Your task to perform on an android device: Open Google Chrome and open the bookmarks view Image 0: 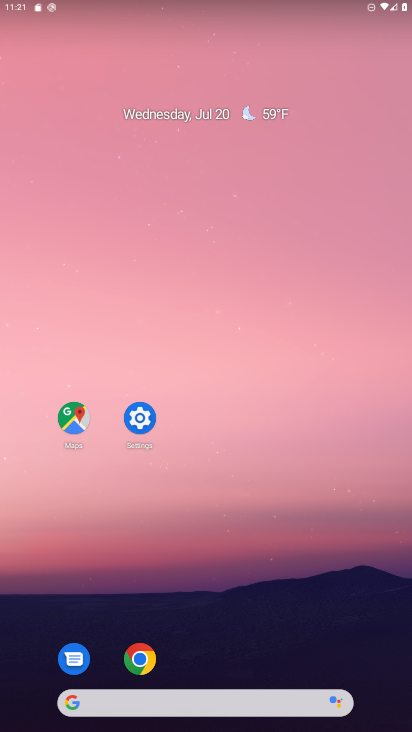
Step 0: click (144, 652)
Your task to perform on an android device: Open Google Chrome and open the bookmarks view Image 1: 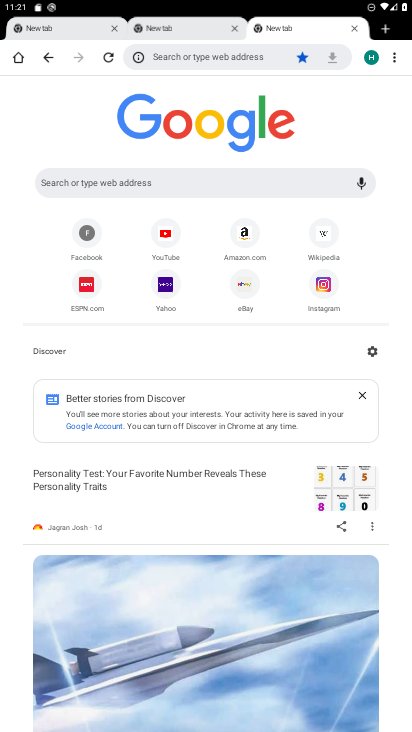
Step 1: click (393, 56)
Your task to perform on an android device: Open Google Chrome and open the bookmarks view Image 2: 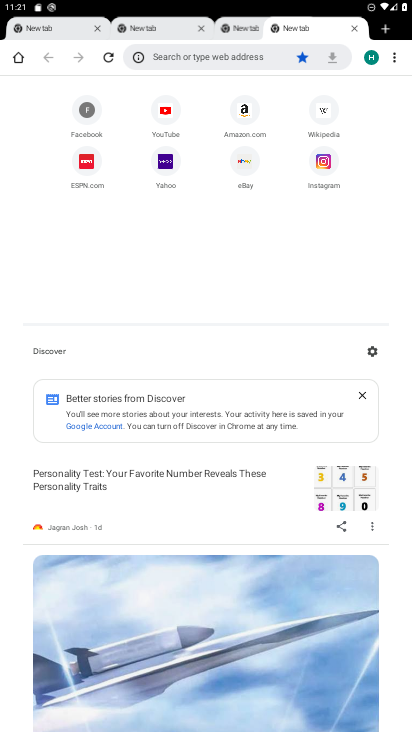
Step 2: click (398, 55)
Your task to perform on an android device: Open Google Chrome and open the bookmarks view Image 3: 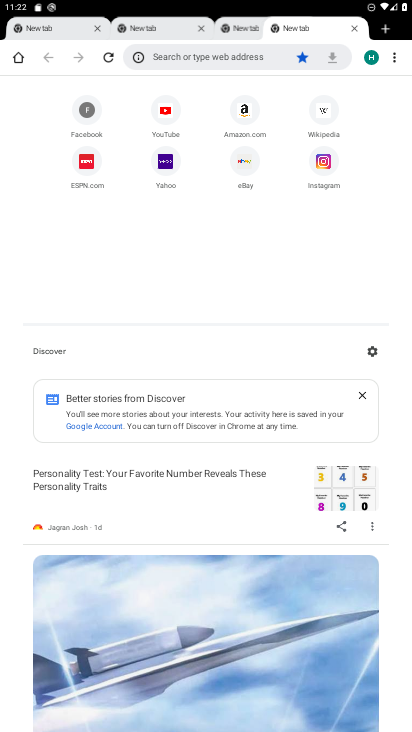
Step 3: click (389, 59)
Your task to perform on an android device: Open Google Chrome and open the bookmarks view Image 4: 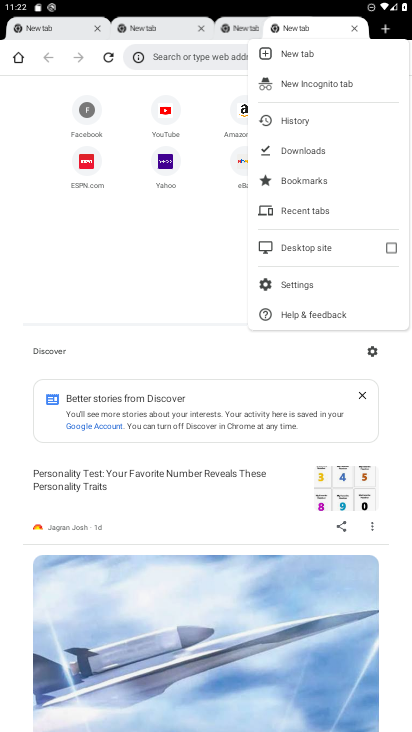
Step 4: click (305, 180)
Your task to perform on an android device: Open Google Chrome and open the bookmarks view Image 5: 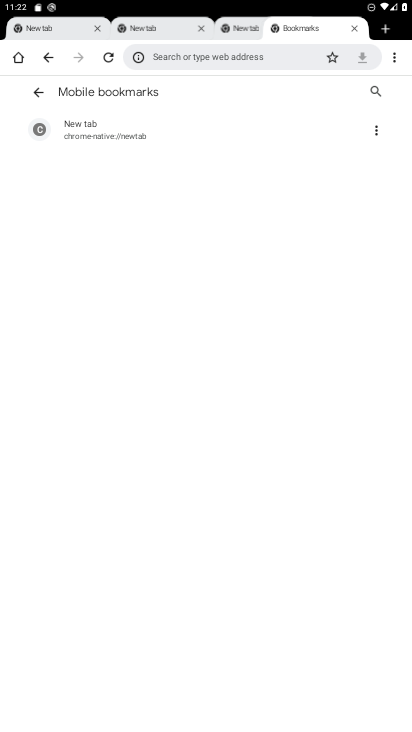
Step 5: task complete